Your task to perform on an android device: Find coffee shops on Maps Image 0: 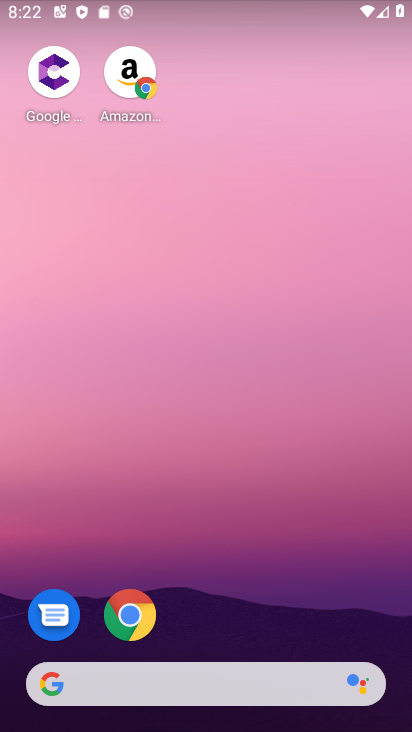
Step 0: drag from (267, 630) to (214, 101)
Your task to perform on an android device: Find coffee shops on Maps Image 1: 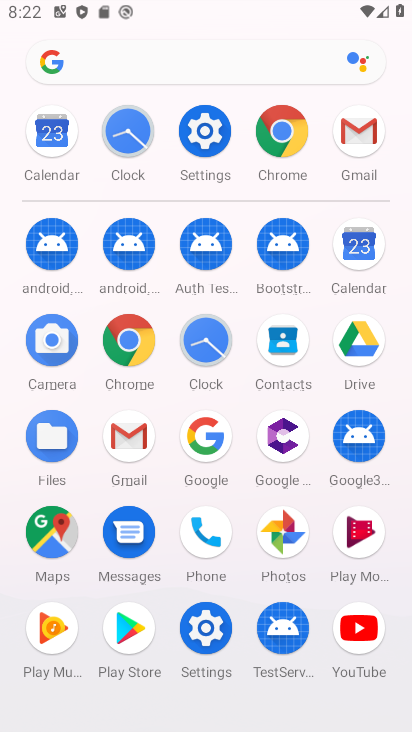
Step 1: click (51, 532)
Your task to perform on an android device: Find coffee shops on Maps Image 2: 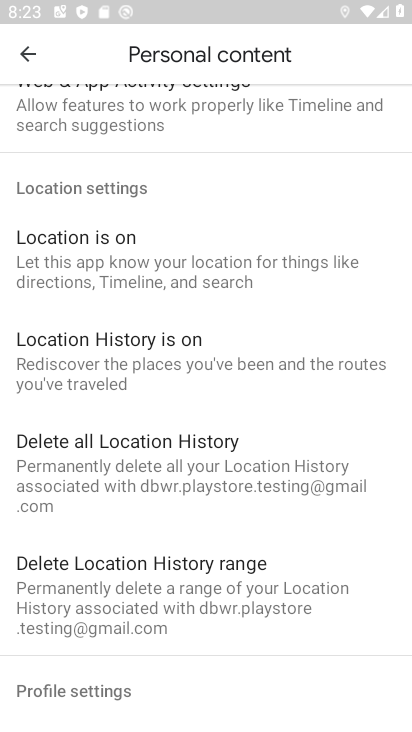
Step 2: press back button
Your task to perform on an android device: Find coffee shops on Maps Image 3: 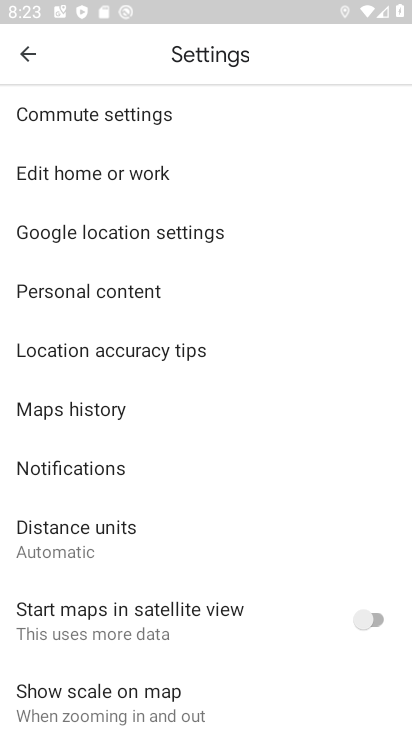
Step 3: press back button
Your task to perform on an android device: Find coffee shops on Maps Image 4: 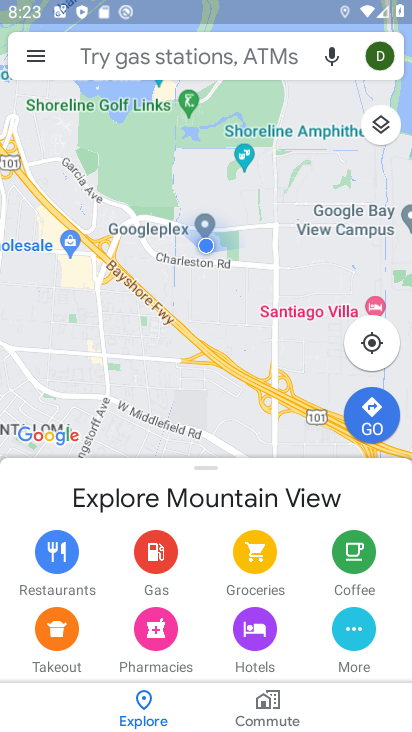
Step 4: click (160, 54)
Your task to perform on an android device: Find coffee shops on Maps Image 5: 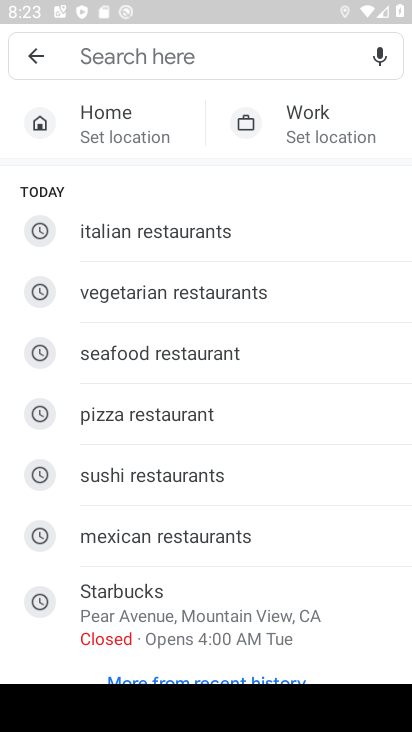
Step 5: type "coffee shops"
Your task to perform on an android device: Find coffee shops on Maps Image 6: 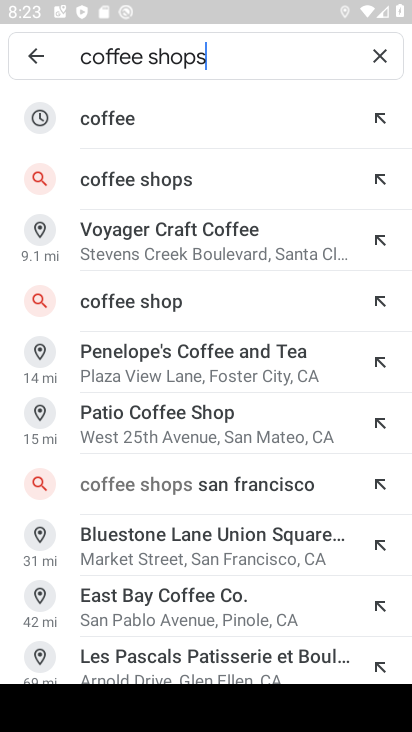
Step 6: click (175, 183)
Your task to perform on an android device: Find coffee shops on Maps Image 7: 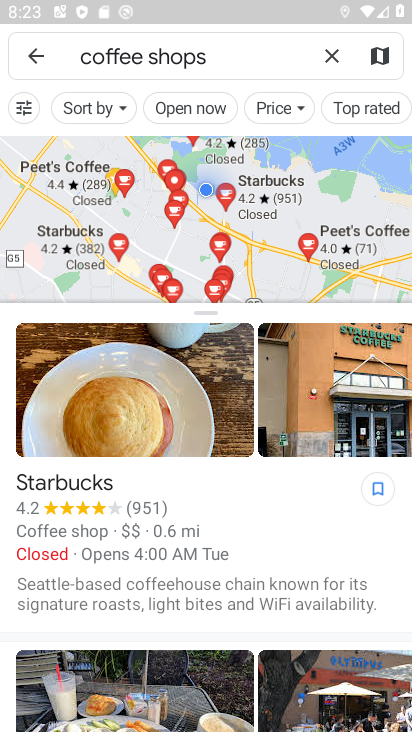
Step 7: task complete